Your task to perform on an android device: Open the web browser Image 0: 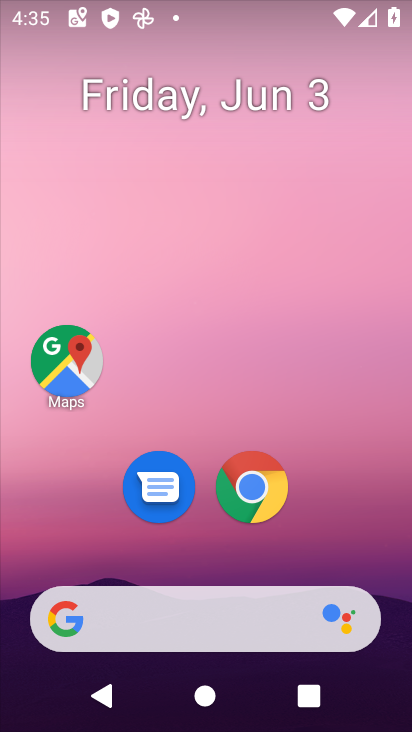
Step 0: drag from (230, 565) to (233, 63)
Your task to perform on an android device: Open the web browser Image 1: 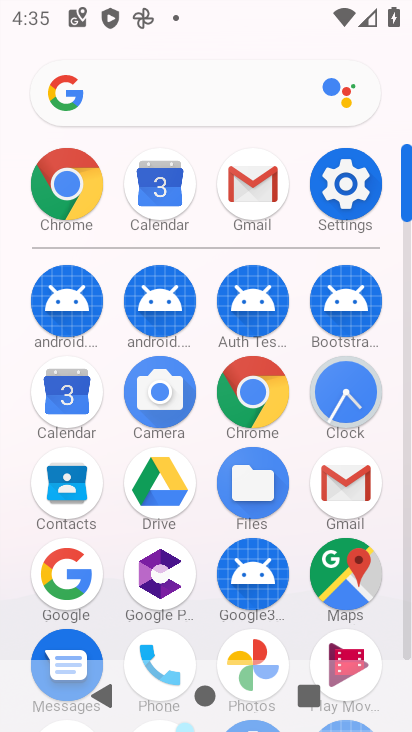
Step 1: click (251, 386)
Your task to perform on an android device: Open the web browser Image 2: 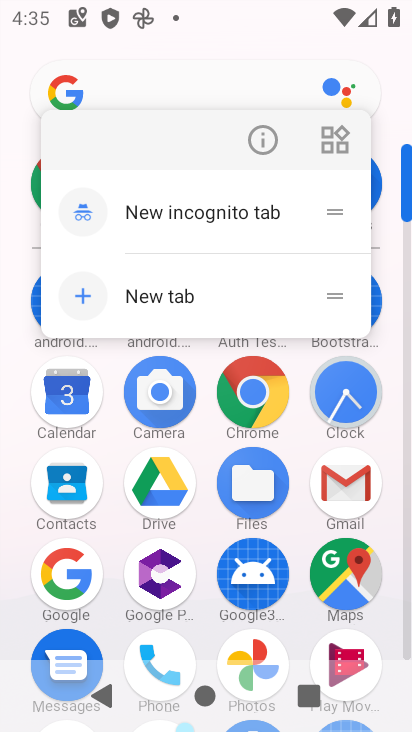
Step 2: click (254, 151)
Your task to perform on an android device: Open the web browser Image 3: 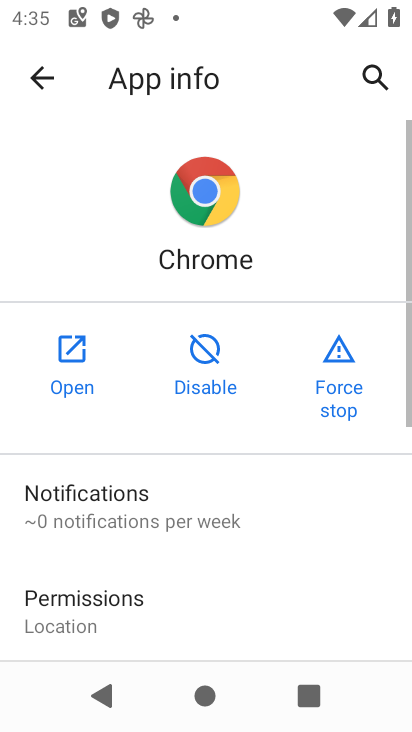
Step 3: click (47, 349)
Your task to perform on an android device: Open the web browser Image 4: 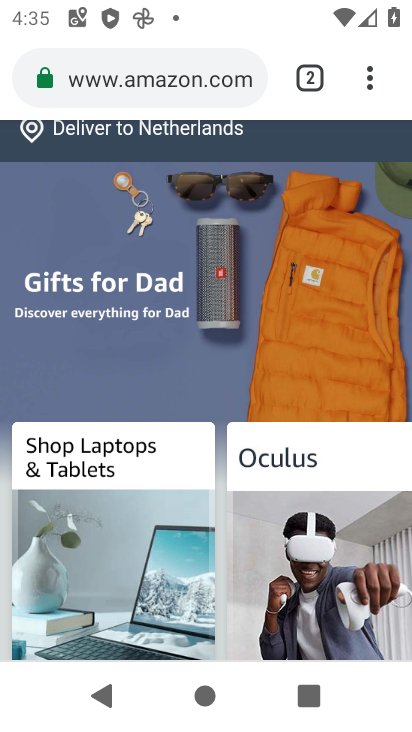
Step 4: task complete